Your task to perform on an android device: Is it going to rain this weekend? Image 0: 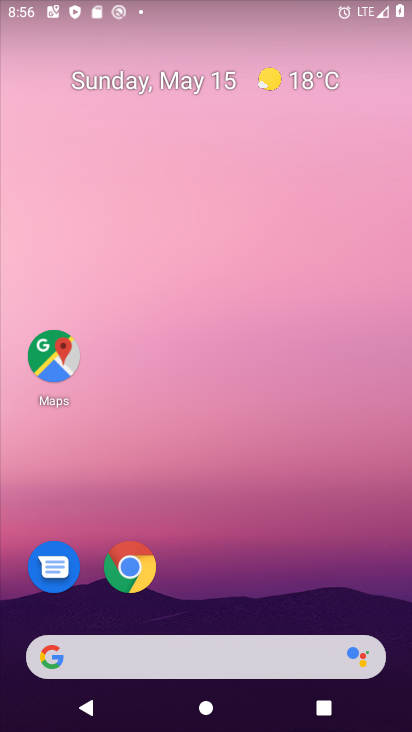
Step 0: click (34, 729)
Your task to perform on an android device: Is it going to rain this weekend? Image 1: 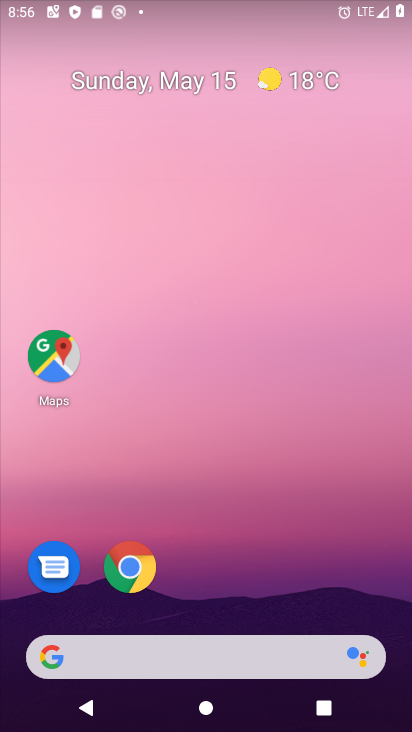
Step 1: click (142, 669)
Your task to perform on an android device: Is it going to rain this weekend? Image 2: 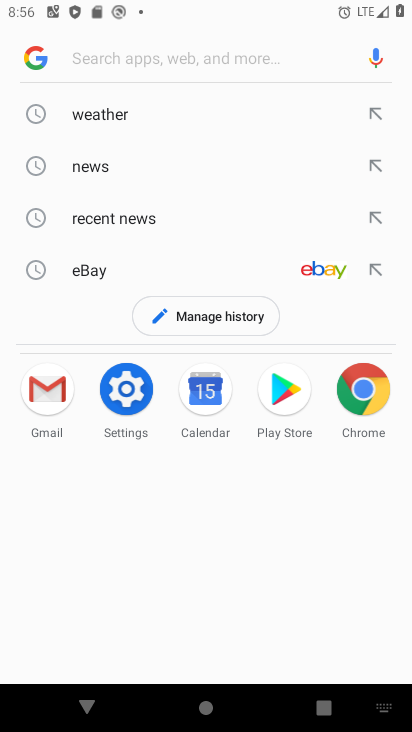
Step 2: type " Is it going to rain this weekend?"
Your task to perform on an android device: Is it going to rain this weekend? Image 3: 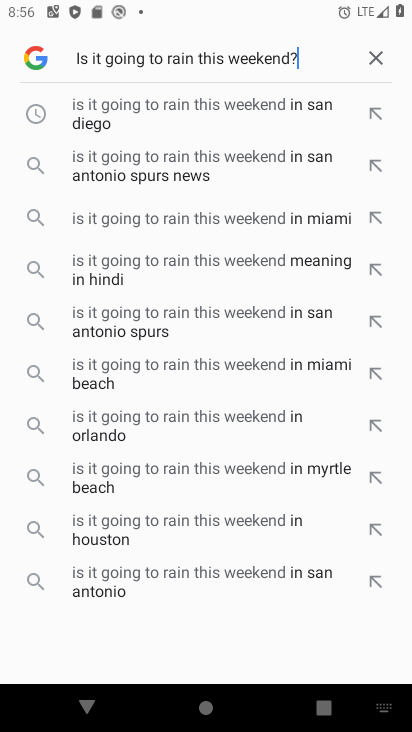
Step 3: type "near ms"
Your task to perform on an android device: Is it going to rain this weekend? Image 4: 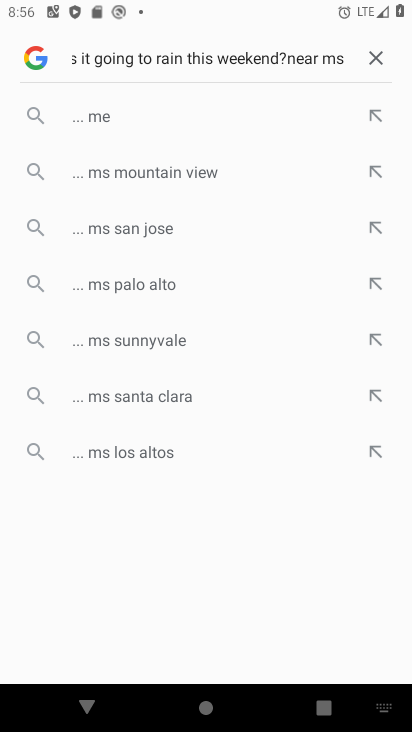
Step 4: click (229, 114)
Your task to perform on an android device: Is it going to rain this weekend? Image 5: 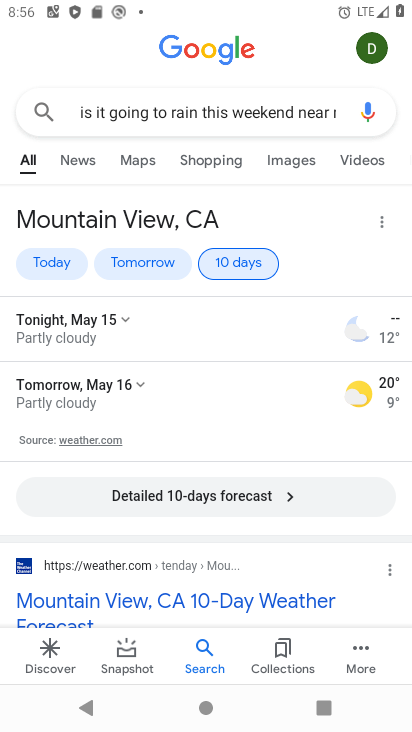
Step 5: task complete